Your task to perform on an android device: turn vacation reply on in the gmail app Image 0: 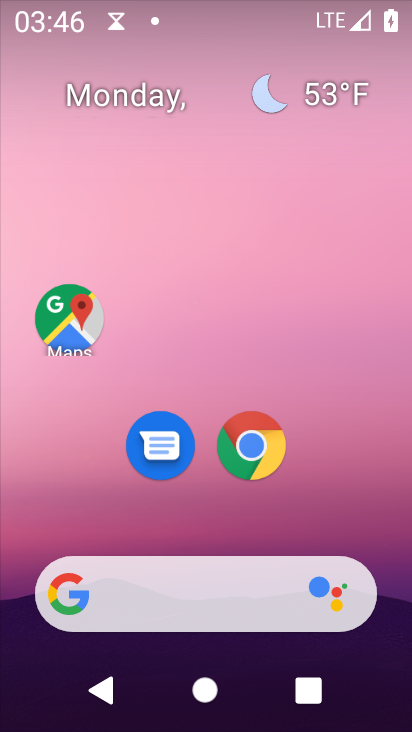
Step 0: drag from (214, 536) to (242, 83)
Your task to perform on an android device: turn vacation reply on in the gmail app Image 1: 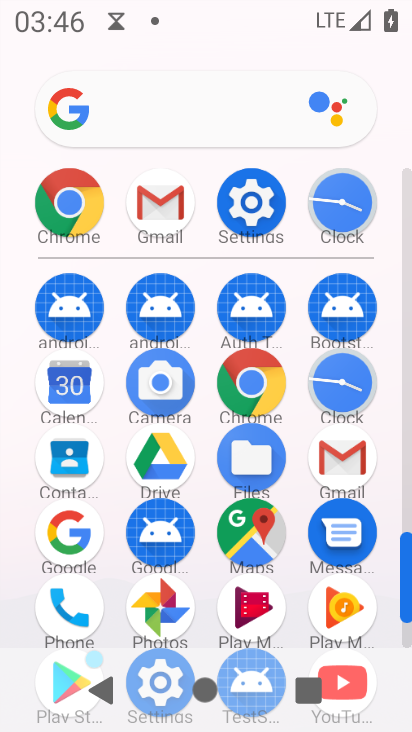
Step 1: click (359, 460)
Your task to perform on an android device: turn vacation reply on in the gmail app Image 2: 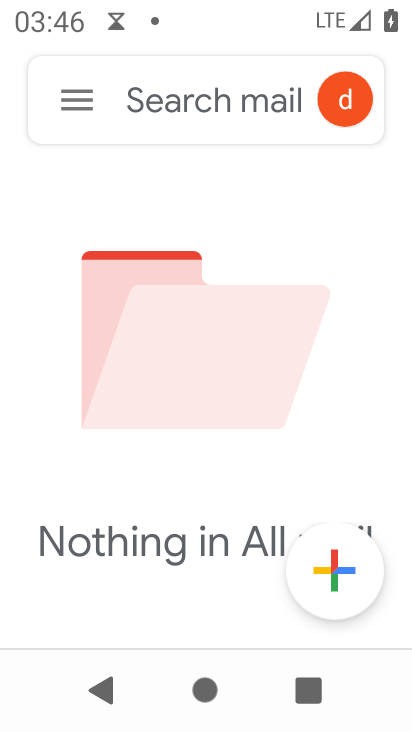
Step 2: click (72, 103)
Your task to perform on an android device: turn vacation reply on in the gmail app Image 3: 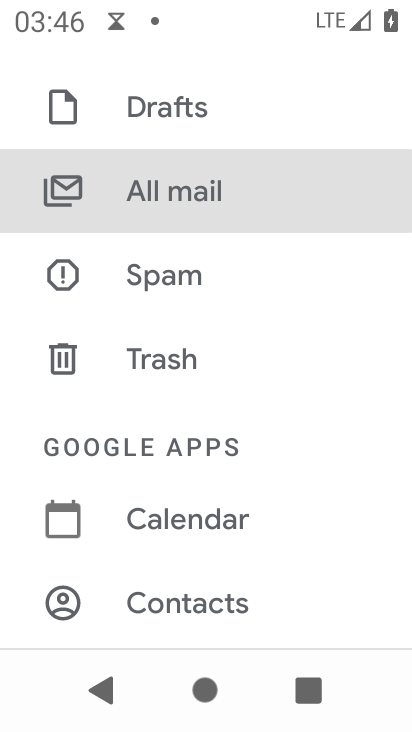
Step 3: drag from (123, 597) to (185, 242)
Your task to perform on an android device: turn vacation reply on in the gmail app Image 4: 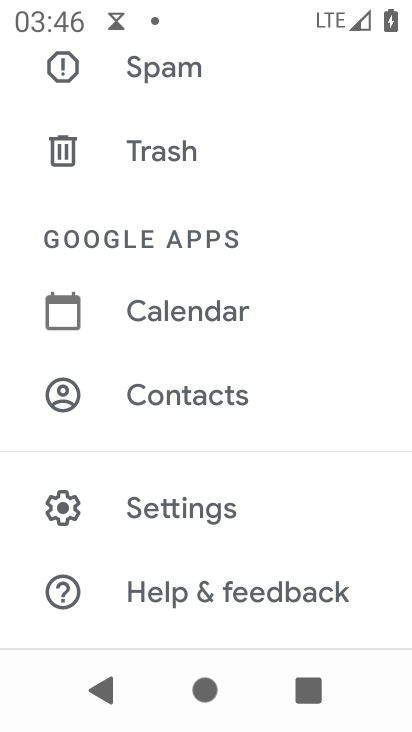
Step 4: click (179, 520)
Your task to perform on an android device: turn vacation reply on in the gmail app Image 5: 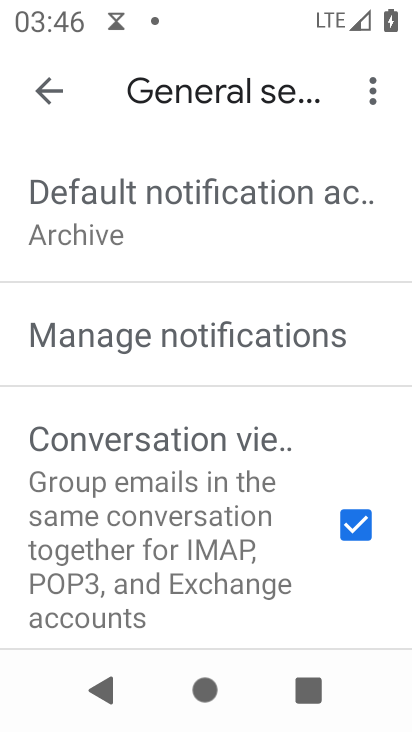
Step 5: click (54, 102)
Your task to perform on an android device: turn vacation reply on in the gmail app Image 6: 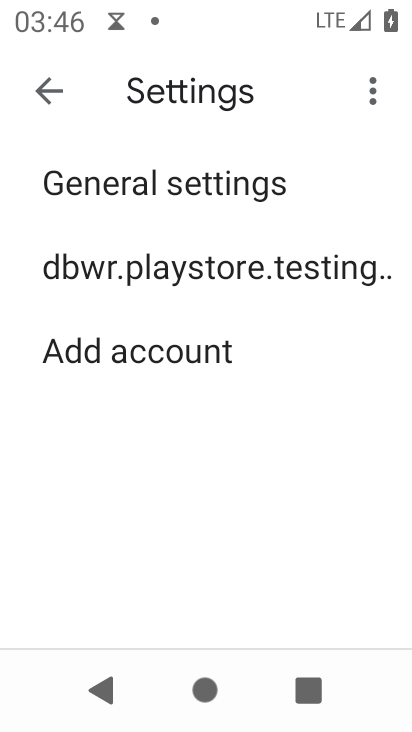
Step 6: click (181, 265)
Your task to perform on an android device: turn vacation reply on in the gmail app Image 7: 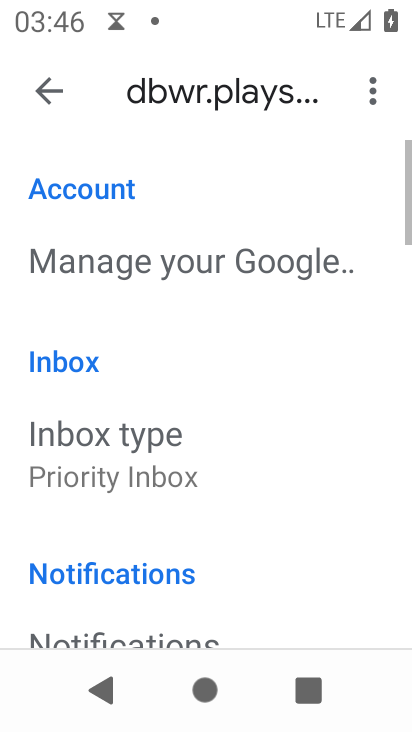
Step 7: drag from (198, 543) to (253, 218)
Your task to perform on an android device: turn vacation reply on in the gmail app Image 8: 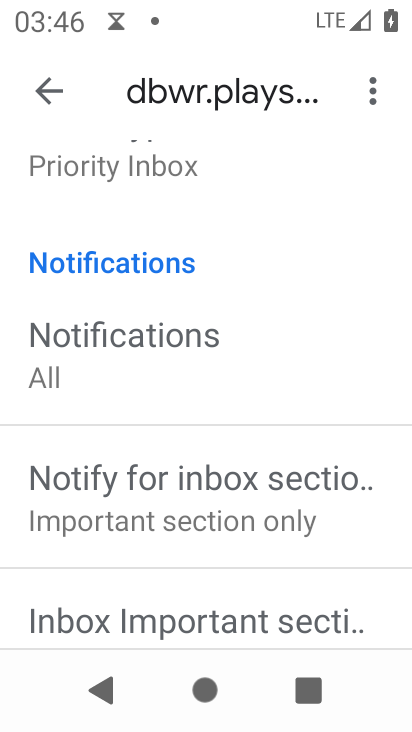
Step 8: drag from (222, 562) to (243, 299)
Your task to perform on an android device: turn vacation reply on in the gmail app Image 9: 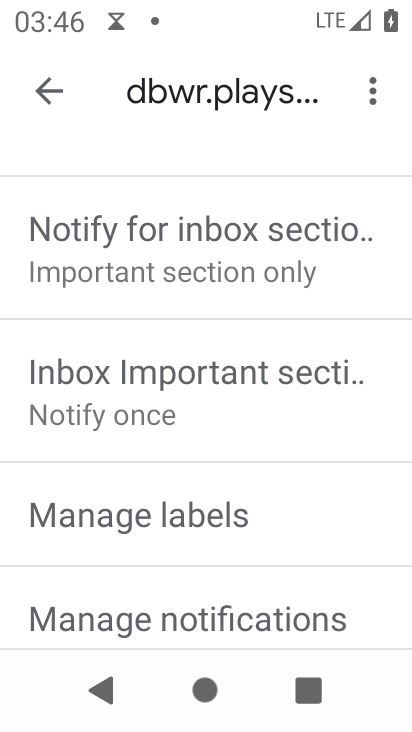
Step 9: drag from (226, 539) to (261, 294)
Your task to perform on an android device: turn vacation reply on in the gmail app Image 10: 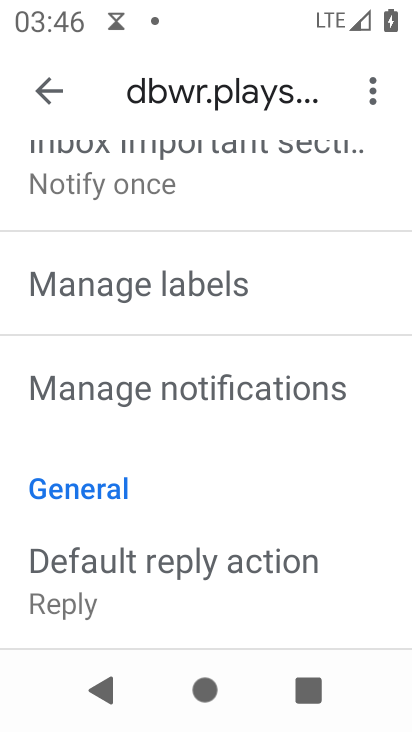
Step 10: drag from (231, 562) to (274, 197)
Your task to perform on an android device: turn vacation reply on in the gmail app Image 11: 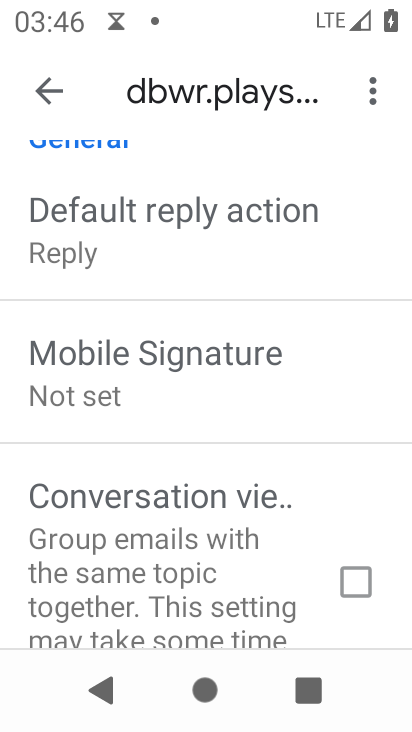
Step 11: drag from (168, 539) to (210, 145)
Your task to perform on an android device: turn vacation reply on in the gmail app Image 12: 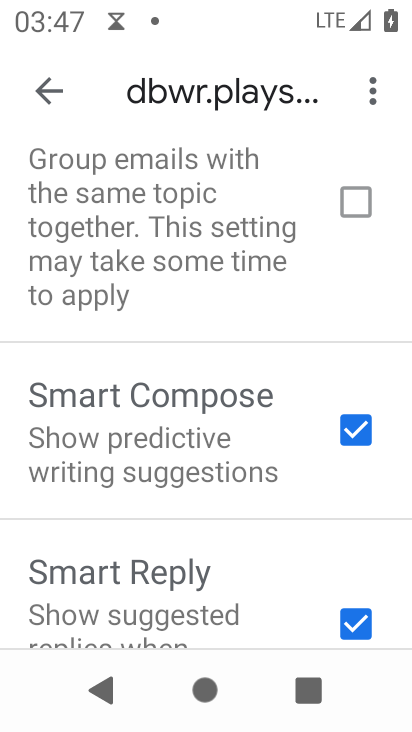
Step 12: drag from (173, 495) to (220, 207)
Your task to perform on an android device: turn vacation reply on in the gmail app Image 13: 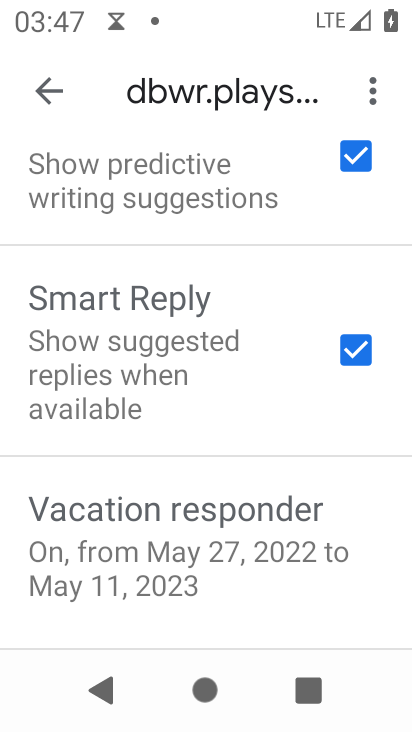
Step 13: click (204, 529)
Your task to perform on an android device: turn vacation reply on in the gmail app Image 14: 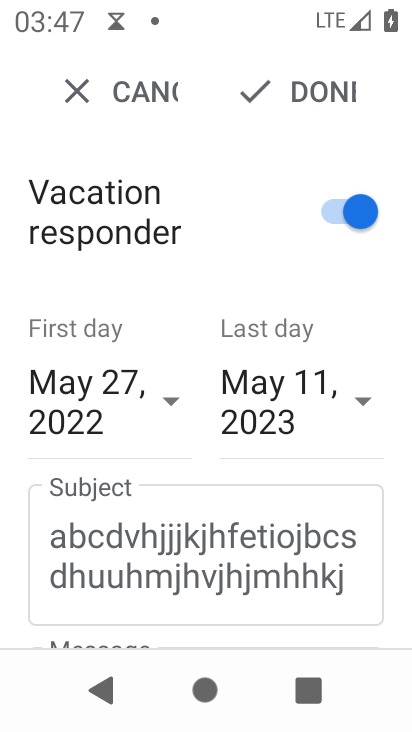
Step 14: task complete